Your task to perform on an android device: Search for logitech g pro on ebay.com, select the first entry, add it to the cart, then select checkout. Image 0: 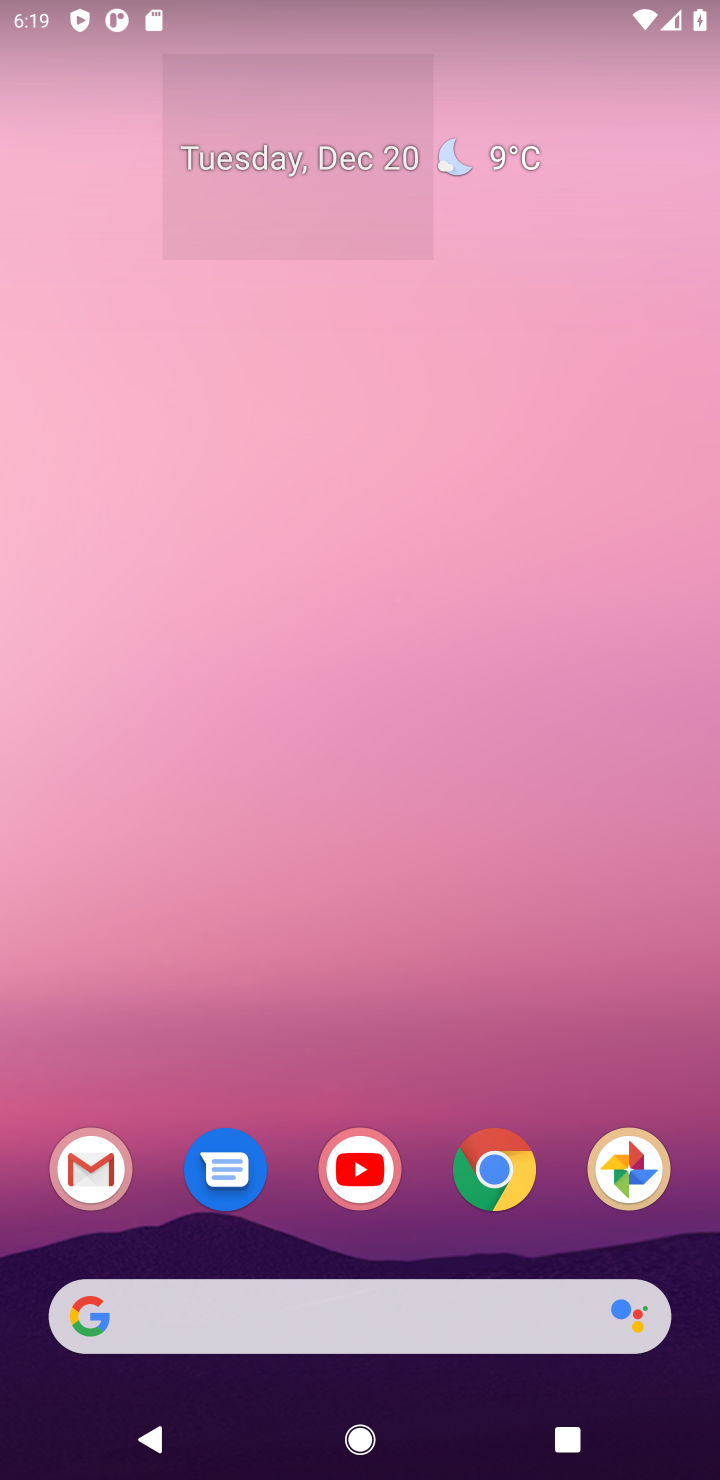
Step 0: click (491, 1148)
Your task to perform on an android device: Search for logitech g pro on ebay.com, select the first entry, add it to the cart, then select checkout. Image 1: 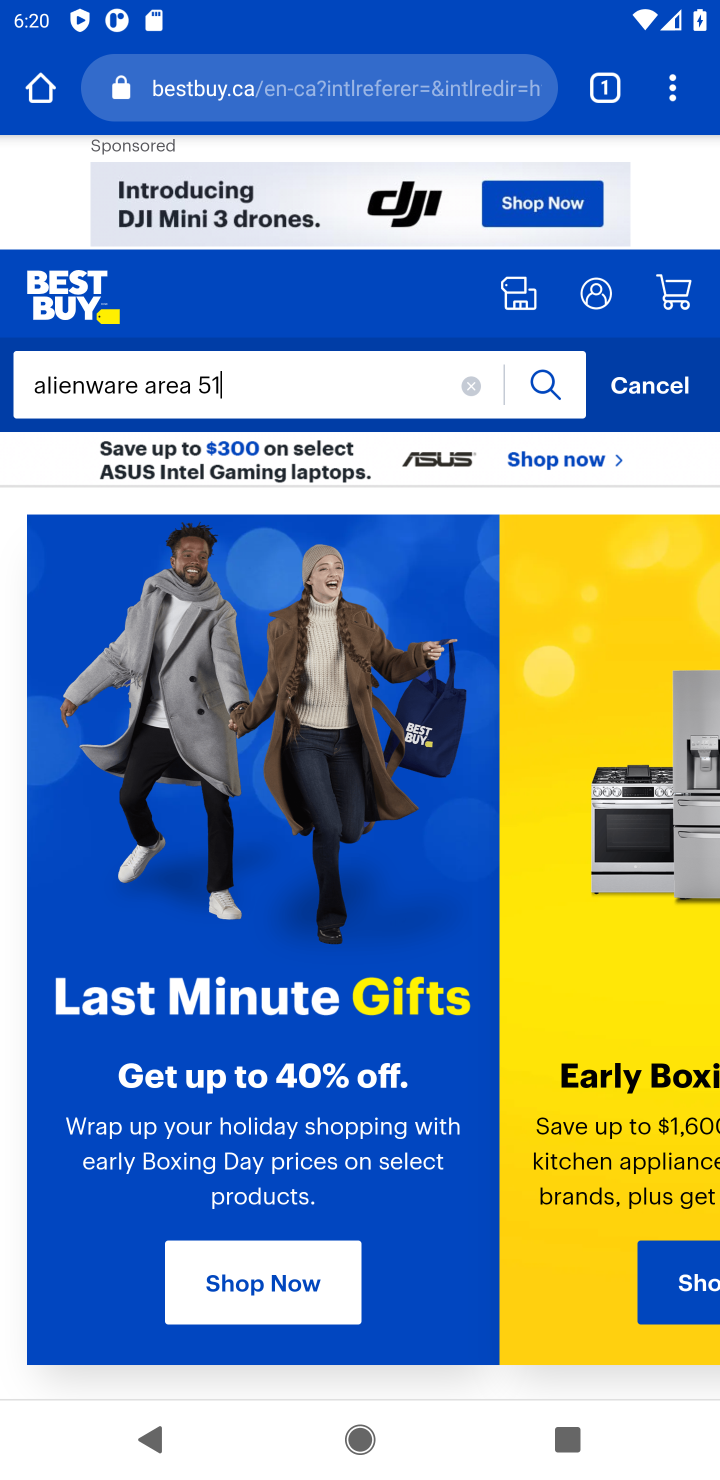
Step 1: click (229, 77)
Your task to perform on an android device: Search for logitech g pro on ebay.com, select the first entry, add it to the cart, then select checkout. Image 2: 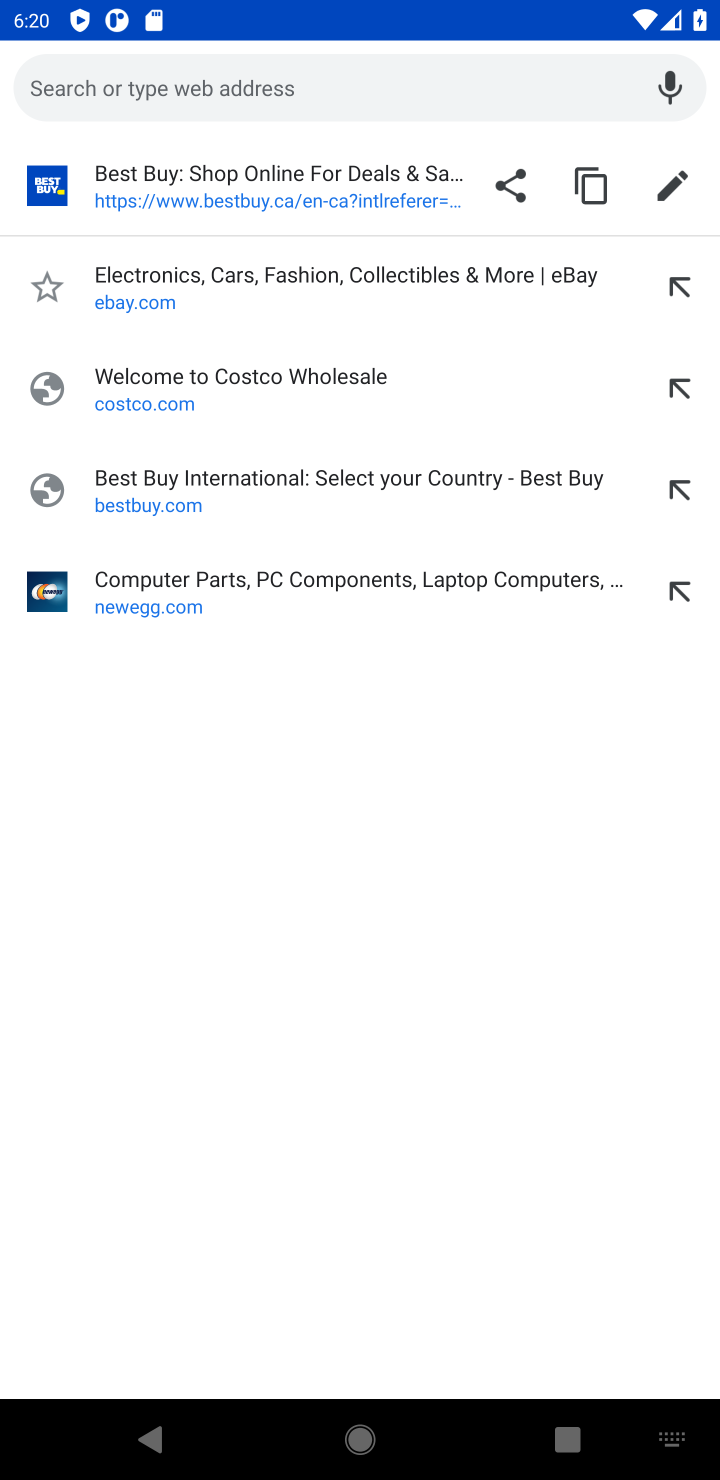
Step 2: type "ebay.com"
Your task to perform on an android device: Search for logitech g pro on ebay.com, select the first entry, add it to the cart, then select checkout. Image 3: 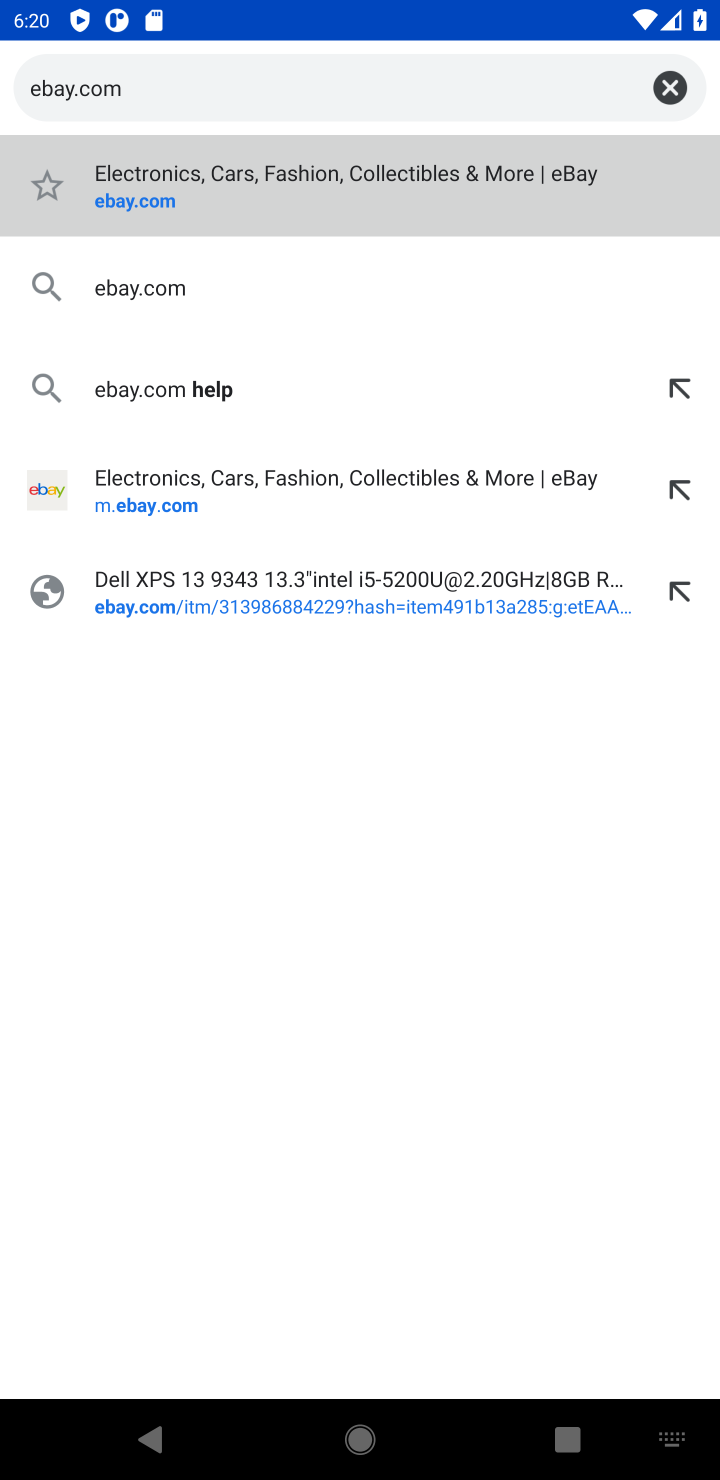
Step 3: click (103, 177)
Your task to perform on an android device: Search for logitech g pro on ebay.com, select the first entry, add it to the cart, then select checkout. Image 4: 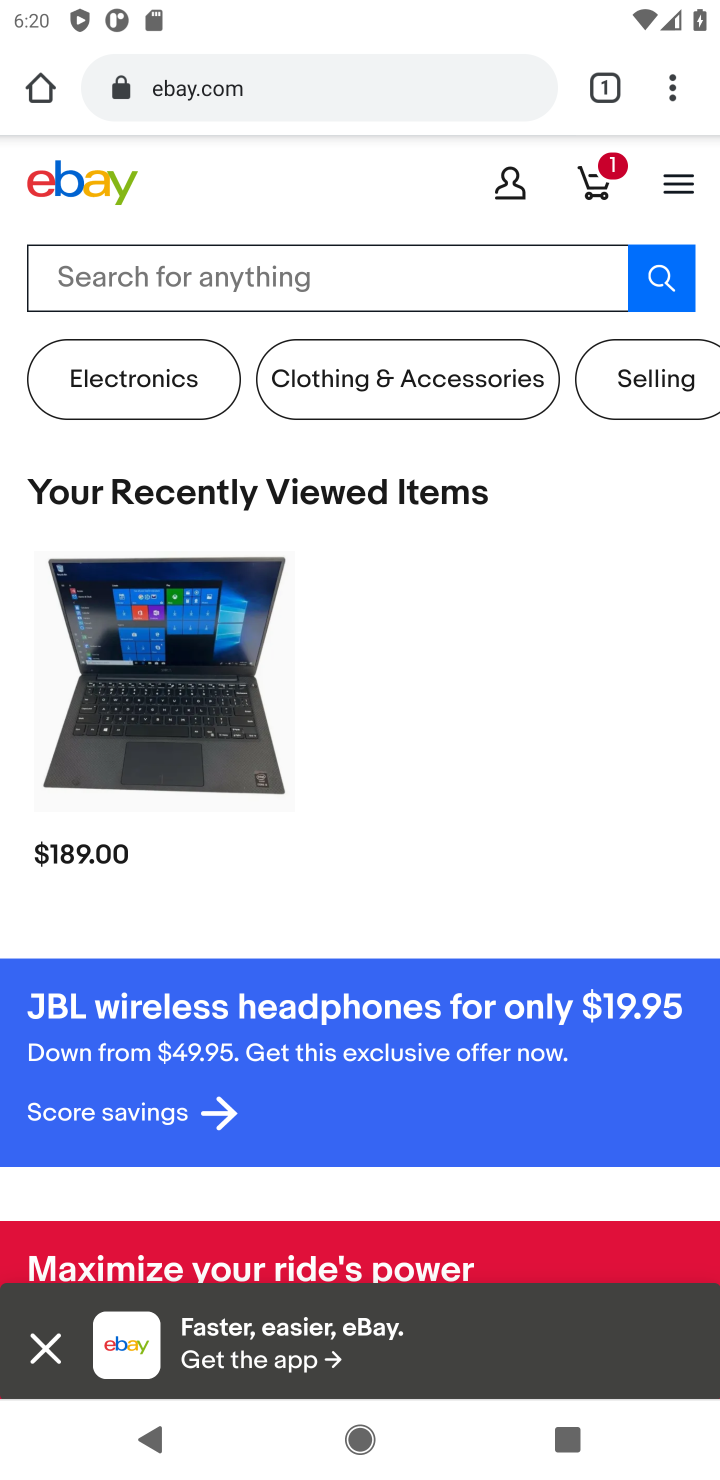
Step 4: click (145, 285)
Your task to perform on an android device: Search for logitech g pro on ebay.com, select the first entry, add it to the cart, then select checkout. Image 5: 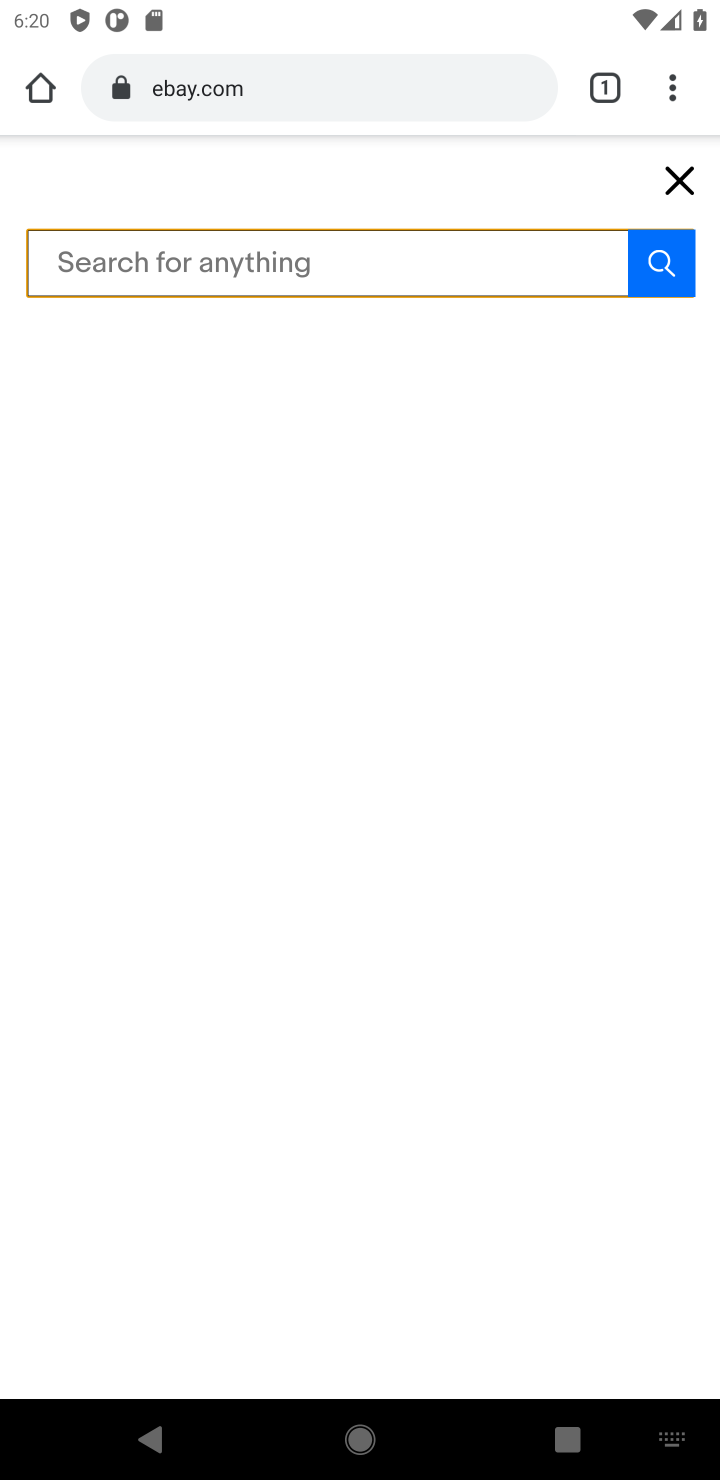
Step 5: type "logitecg g pro"
Your task to perform on an android device: Search for logitech g pro on ebay.com, select the first entry, add it to the cart, then select checkout. Image 6: 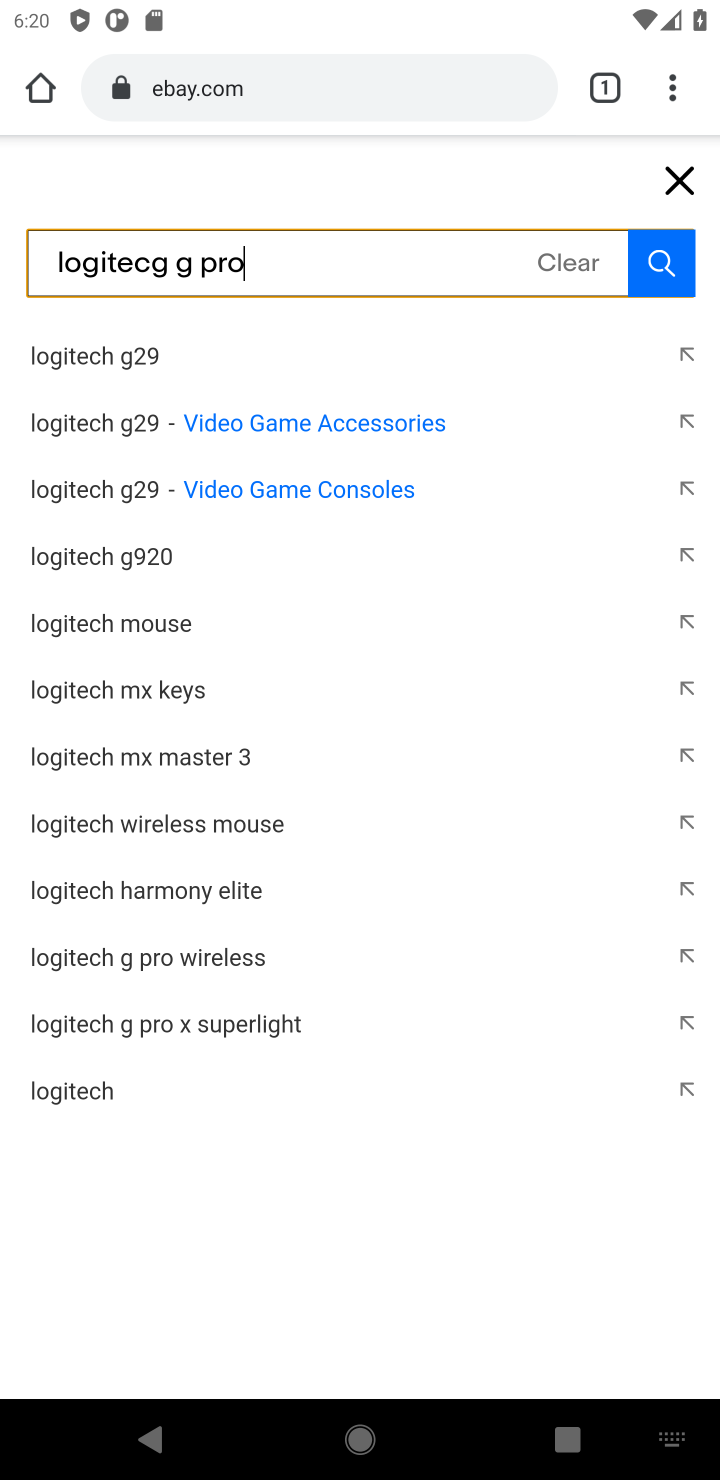
Step 6: click (102, 544)
Your task to perform on an android device: Search for logitech g pro on ebay.com, select the first entry, add it to the cart, then select checkout. Image 7: 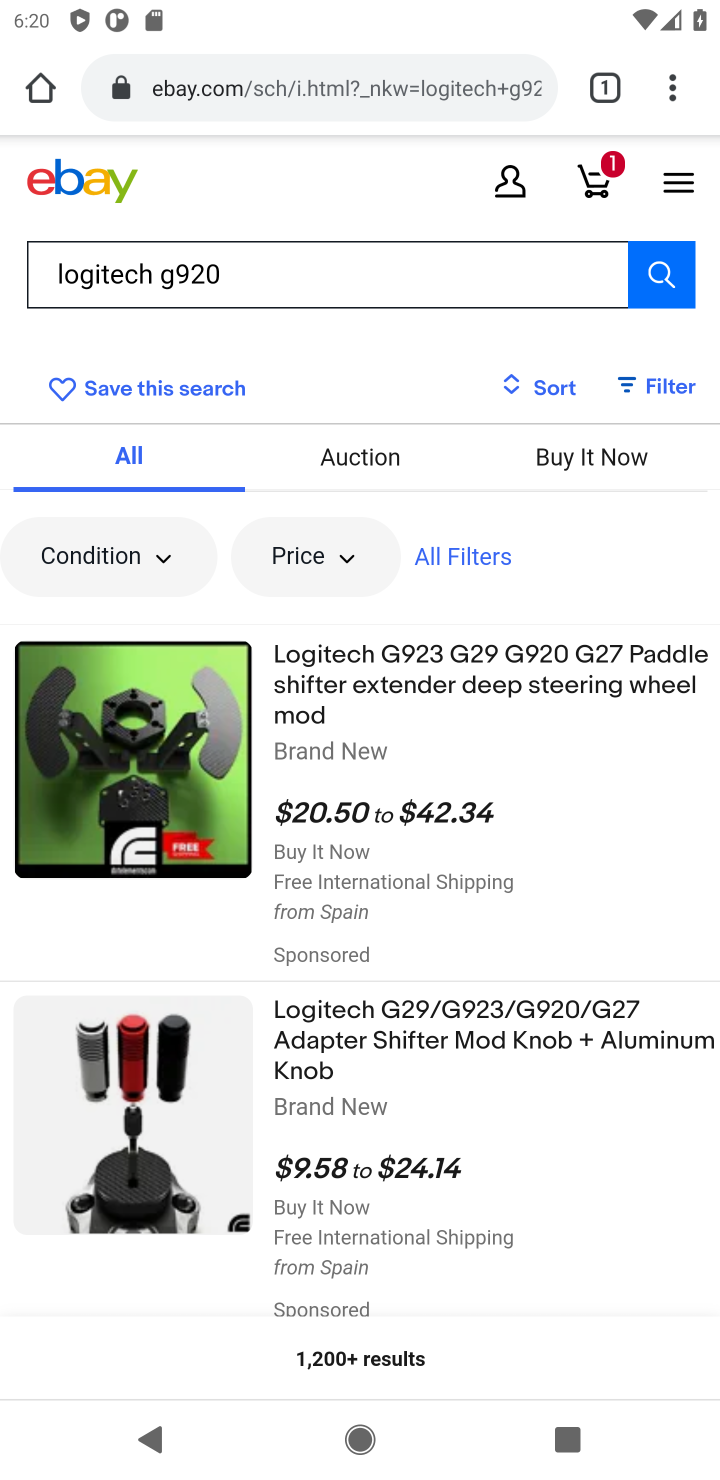
Step 7: click (223, 862)
Your task to perform on an android device: Search for logitech g pro on ebay.com, select the first entry, add it to the cart, then select checkout. Image 8: 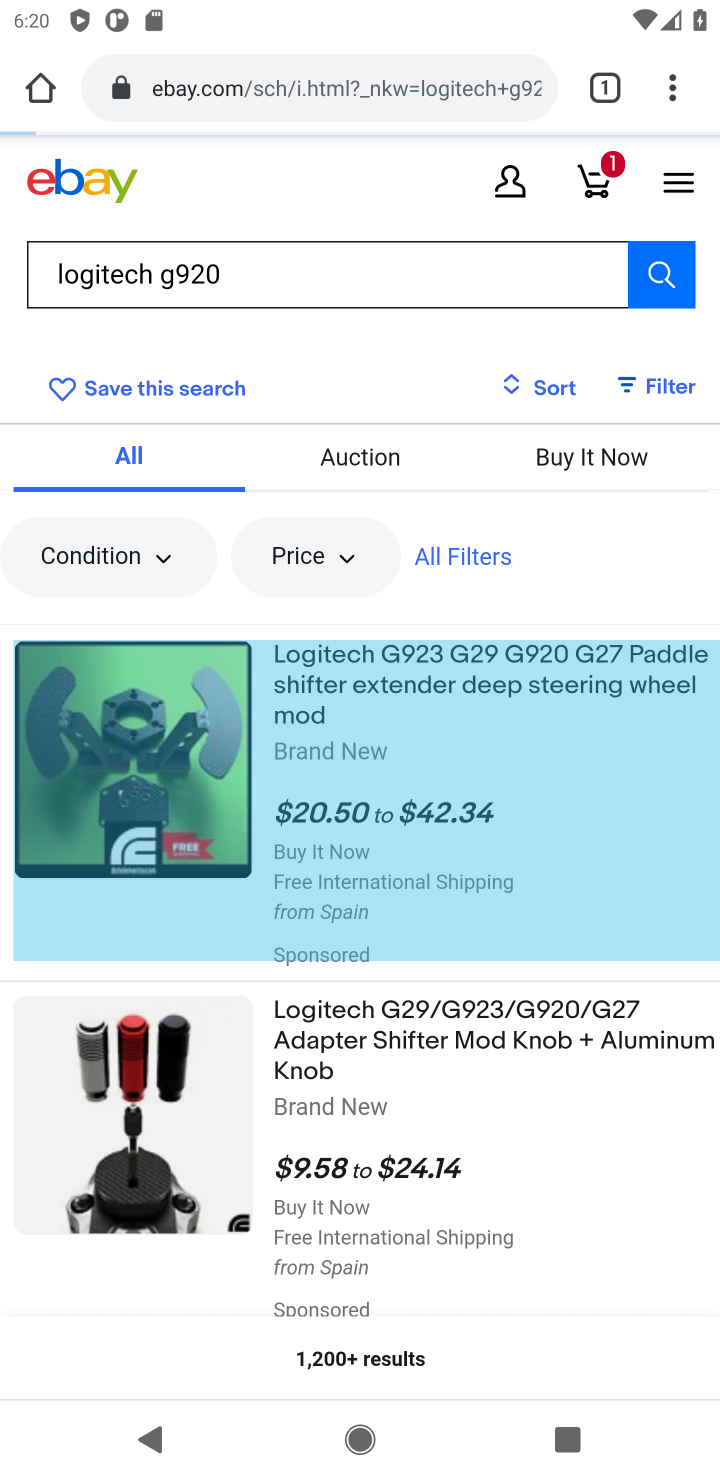
Step 8: click (235, 1192)
Your task to perform on an android device: Search for logitech g pro on ebay.com, select the first entry, add it to the cart, then select checkout. Image 9: 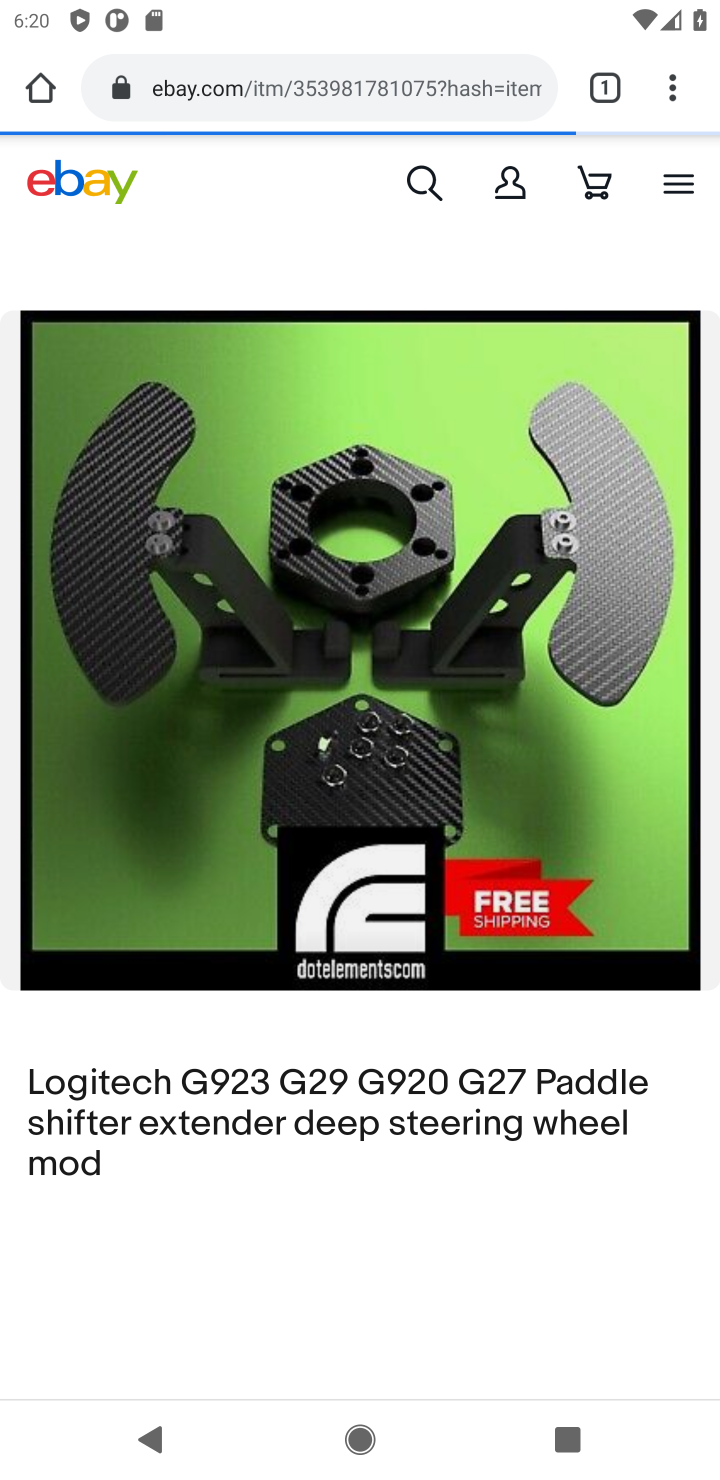
Step 9: task complete